Your task to perform on an android device: empty trash in the gmail app Image 0: 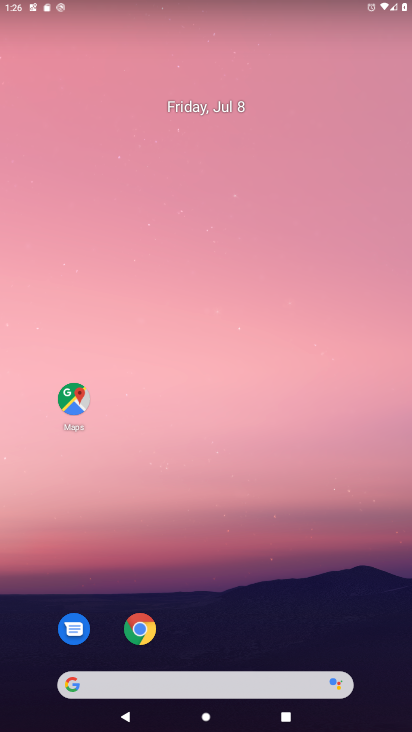
Step 0: drag from (295, 617) to (303, 94)
Your task to perform on an android device: empty trash in the gmail app Image 1: 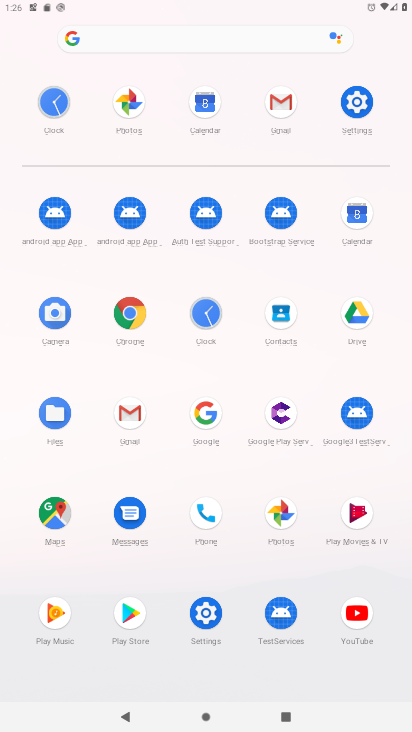
Step 1: click (279, 106)
Your task to perform on an android device: empty trash in the gmail app Image 2: 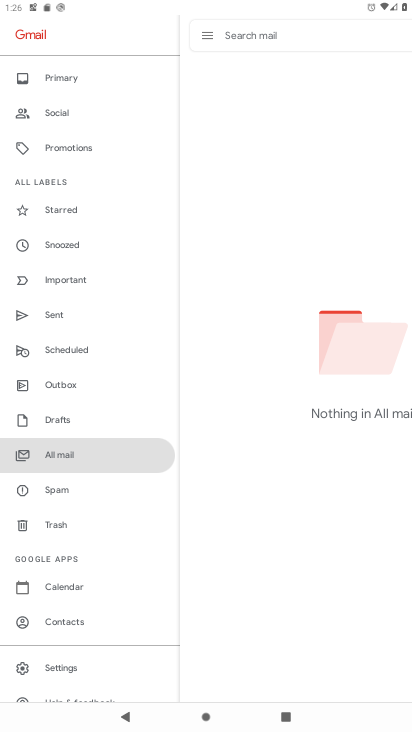
Step 2: click (56, 521)
Your task to perform on an android device: empty trash in the gmail app Image 3: 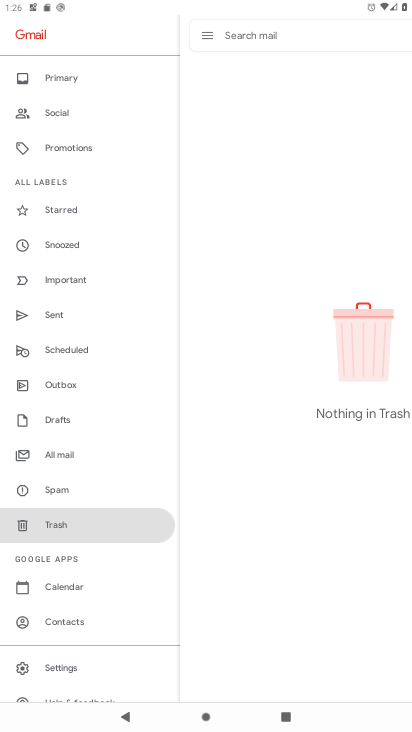
Step 3: task complete